Your task to perform on an android device: turn off notifications in google photos Image 0: 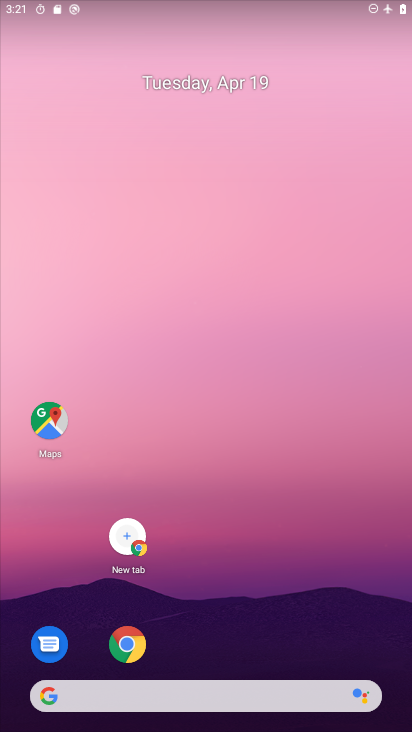
Step 0: drag from (212, 487) to (177, 150)
Your task to perform on an android device: turn off notifications in google photos Image 1: 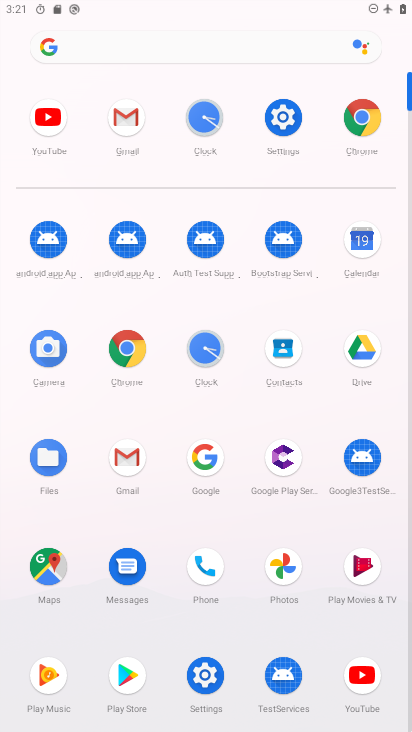
Step 1: click (280, 573)
Your task to perform on an android device: turn off notifications in google photos Image 2: 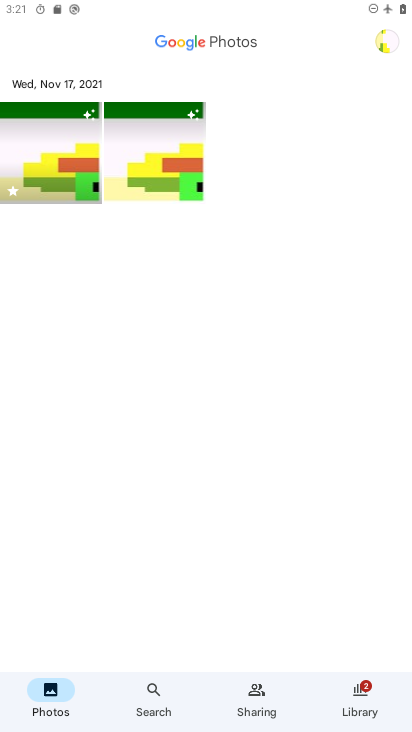
Step 2: click (380, 43)
Your task to perform on an android device: turn off notifications in google photos Image 3: 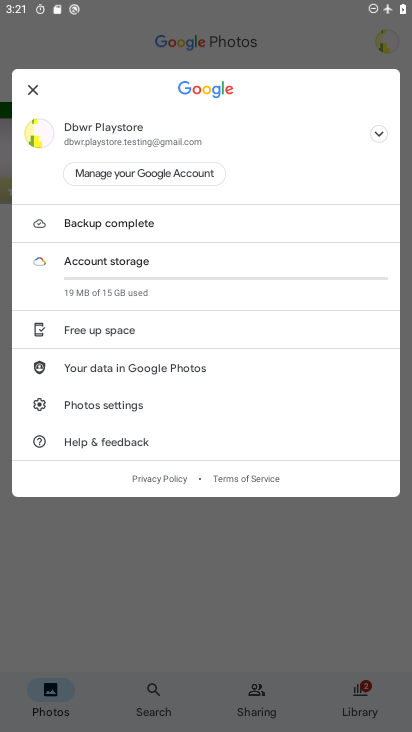
Step 3: click (107, 405)
Your task to perform on an android device: turn off notifications in google photos Image 4: 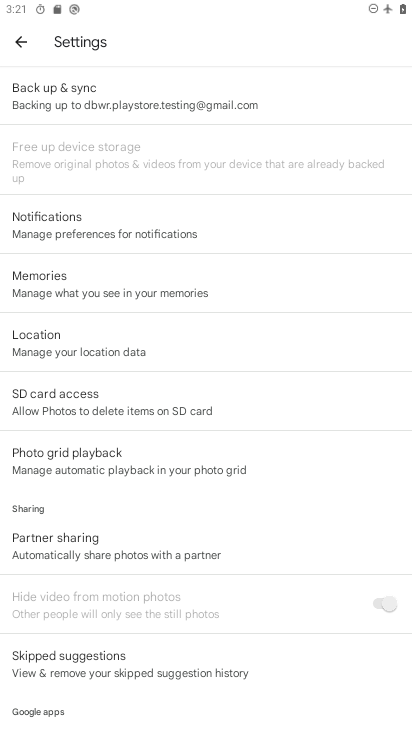
Step 4: click (109, 230)
Your task to perform on an android device: turn off notifications in google photos Image 5: 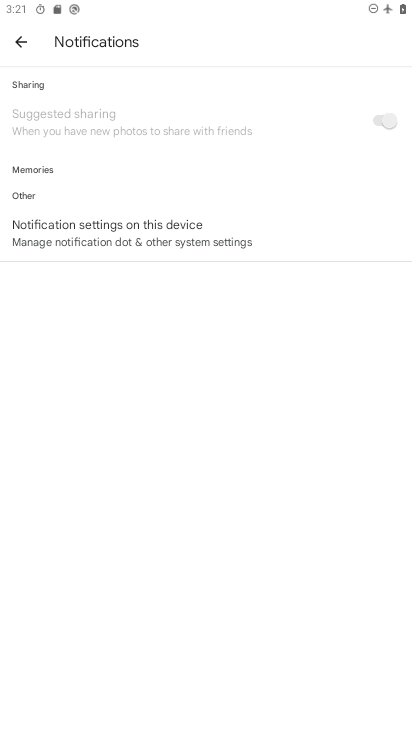
Step 5: click (109, 230)
Your task to perform on an android device: turn off notifications in google photos Image 6: 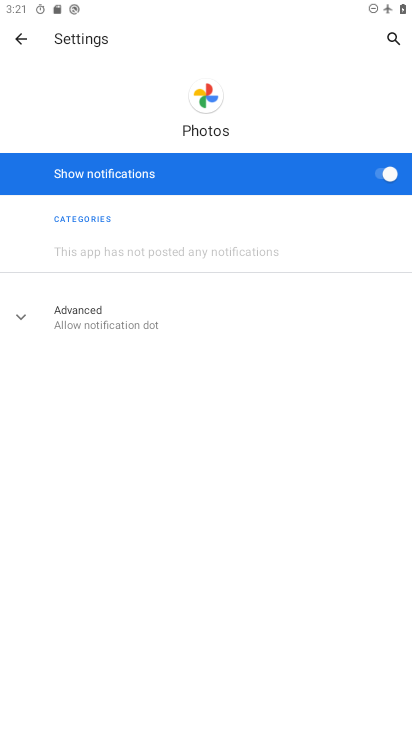
Step 6: click (386, 172)
Your task to perform on an android device: turn off notifications in google photos Image 7: 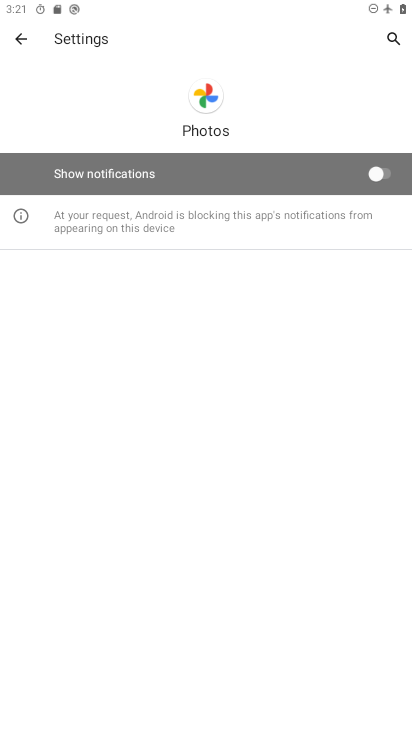
Step 7: task complete